Your task to perform on an android device: What is the news today? Image 0: 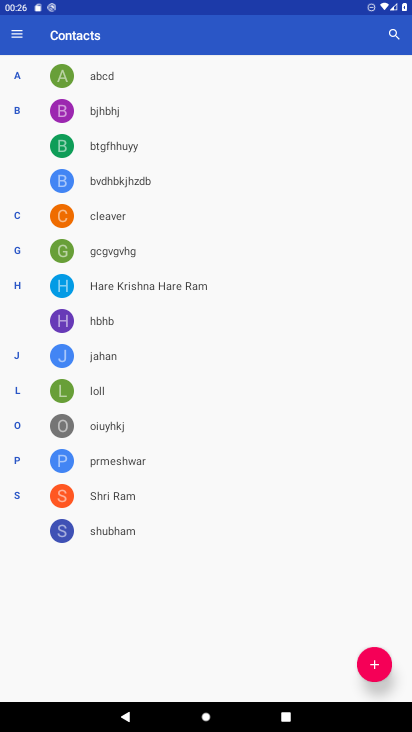
Step 0: press home button
Your task to perform on an android device: What is the news today? Image 1: 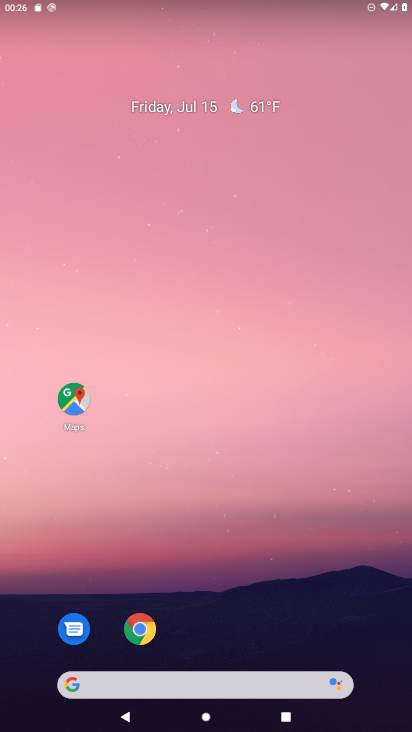
Step 1: click (179, 690)
Your task to perform on an android device: What is the news today? Image 2: 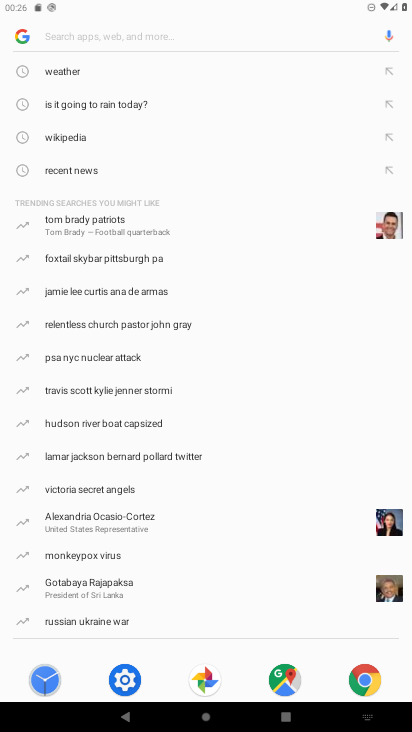
Step 2: click (34, 32)
Your task to perform on an android device: What is the news today? Image 3: 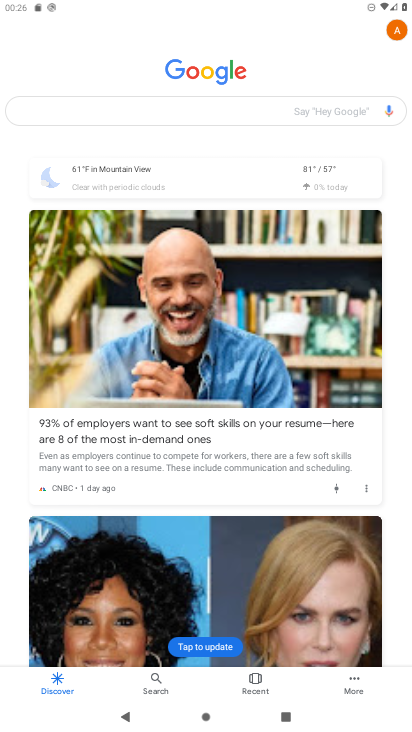
Step 3: task complete